Your task to perform on an android device: show emergency info Image 0: 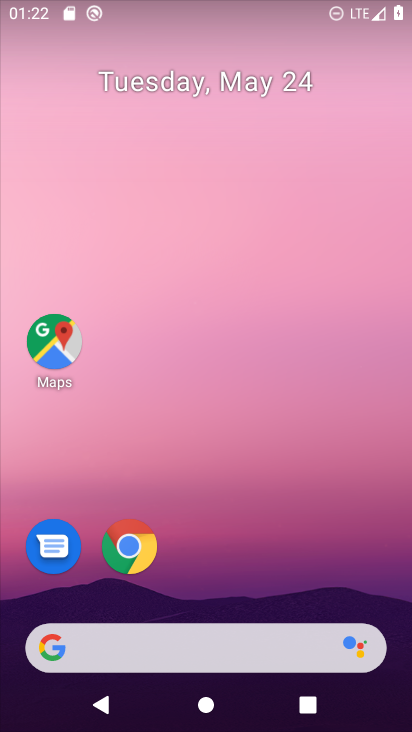
Step 0: drag from (306, 638) to (358, 67)
Your task to perform on an android device: show emergency info Image 1: 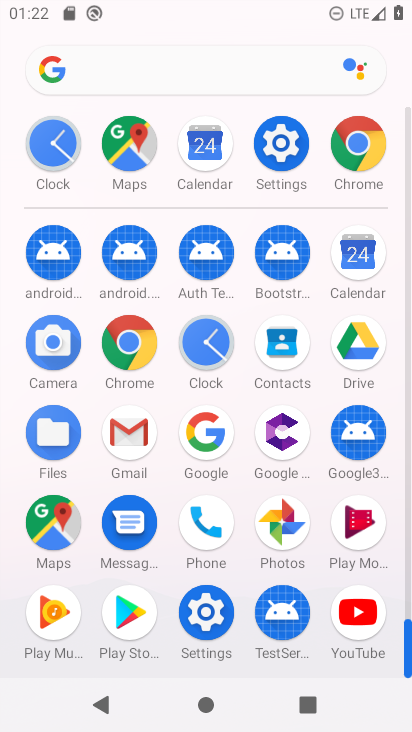
Step 1: click (272, 137)
Your task to perform on an android device: show emergency info Image 2: 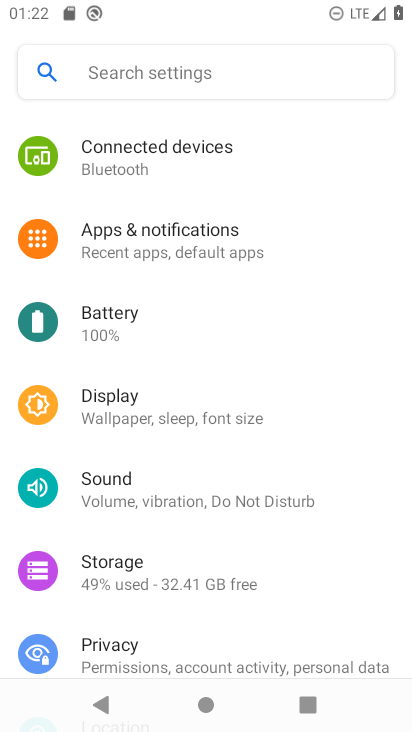
Step 2: drag from (279, 653) to (312, 23)
Your task to perform on an android device: show emergency info Image 3: 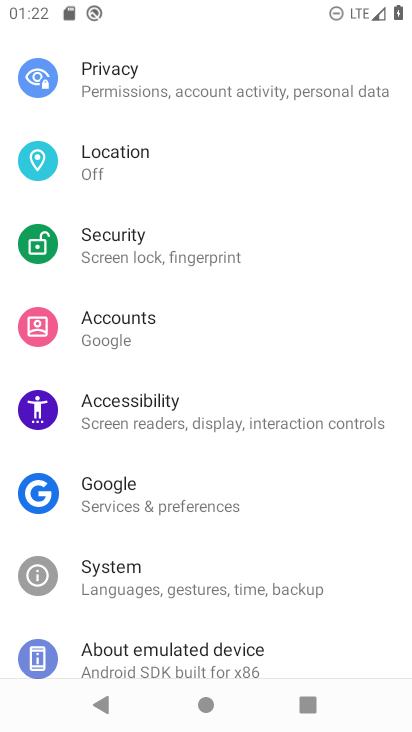
Step 3: drag from (246, 617) to (301, 240)
Your task to perform on an android device: show emergency info Image 4: 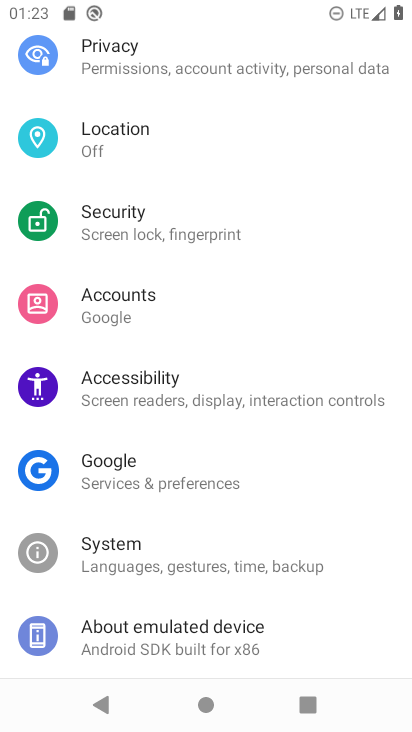
Step 4: click (235, 634)
Your task to perform on an android device: show emergency info Image 5: 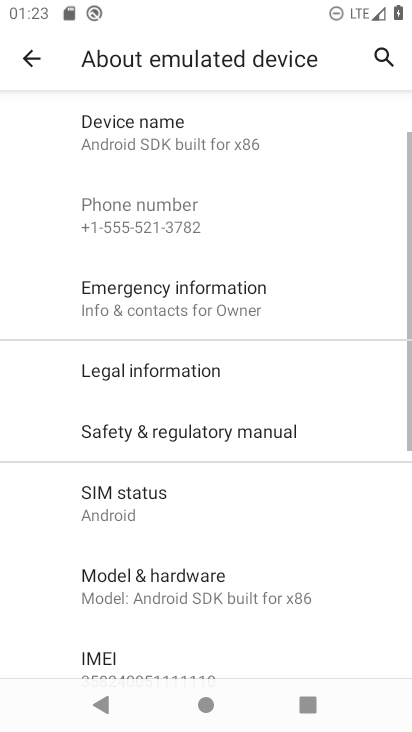
Step 5: click (205, 301)
Your task to perform on an android device: show emergency info Image 6: 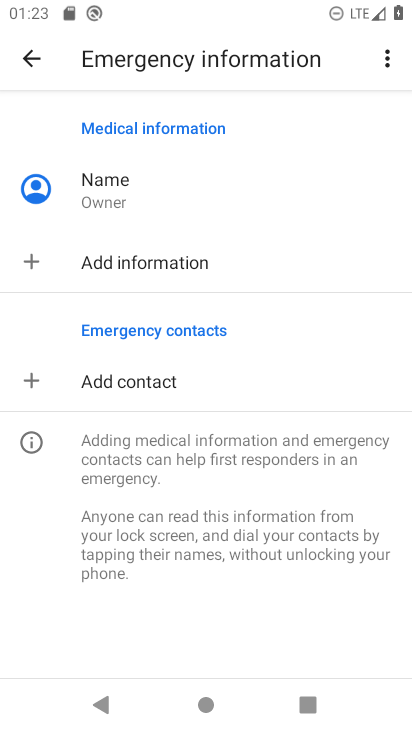
Step 6: task complete